Your task to perform on an android device: add a contact Image 0: 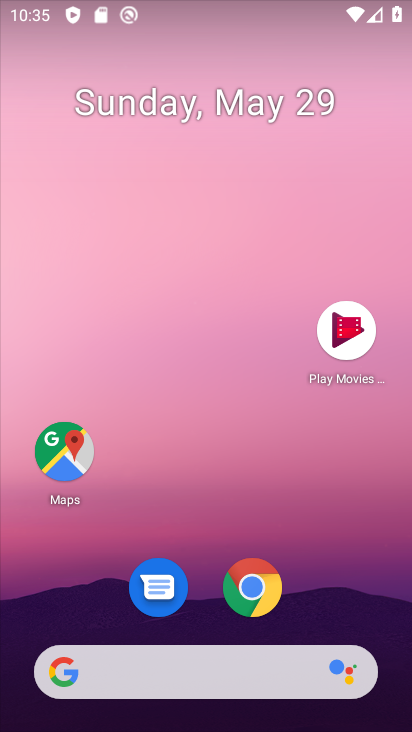
Step 0: drag from (367, 626) to (117, 72)
Your task to perform on an android device: add a contact Image 1: 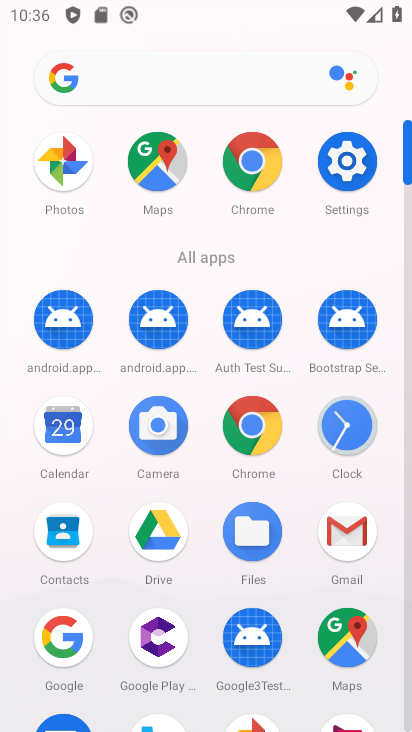
Step 1: click (74, 529)
Your task to perform on an android device: add a contact Image 2: 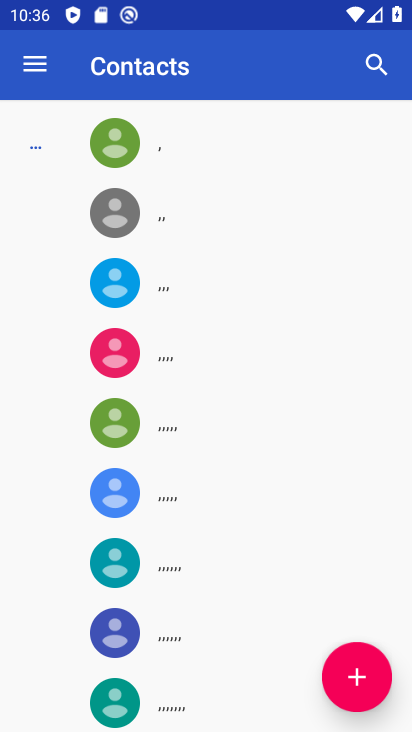
Step 2: click (373, 685)
Your task to perform on an android device: add a contact Image 3: 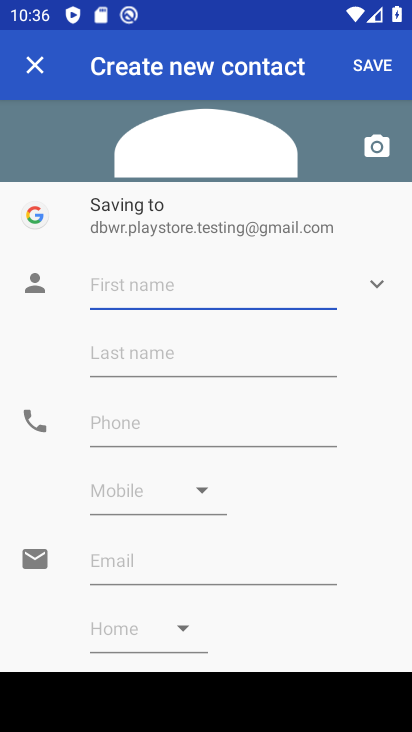
Step 3: type "jkjnjknkj"
Your task to perform on an android device: add a contact Image 4: 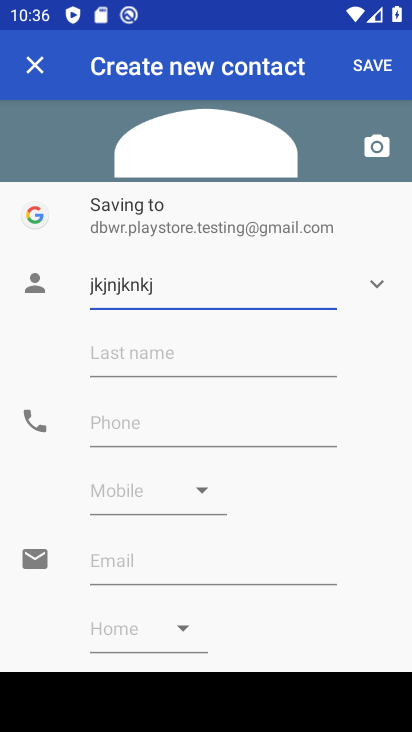
Step 4: click (272, 436)
Your task to perform on an android device: add a contact Image 5: 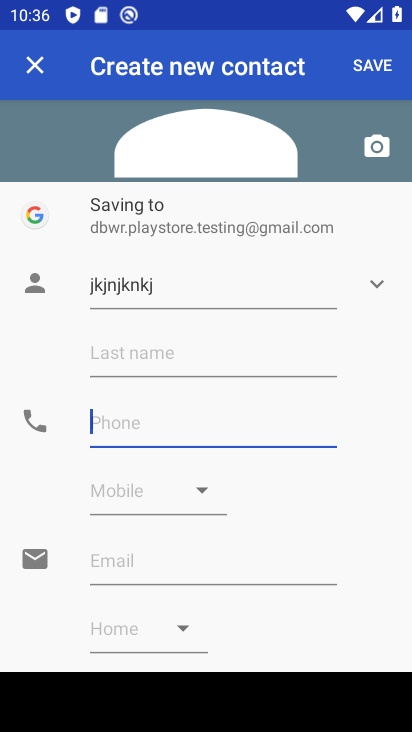
Step 5: type "67697979"
Your task to perform on an android device: add a contact Image 6: 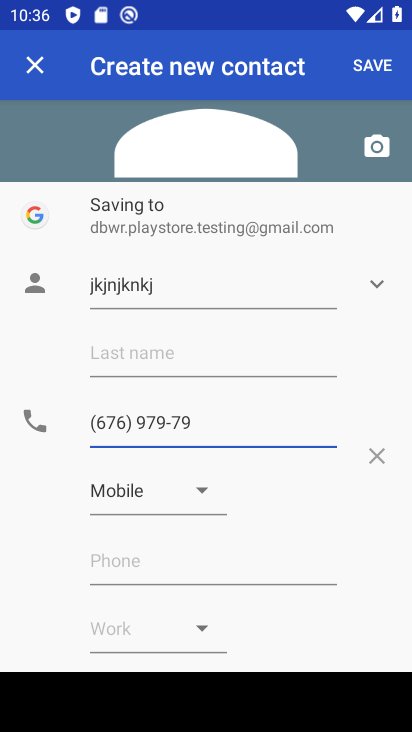
Step 6: click (382, 71)
Your task to perform on an android device: add a contact Image 7: 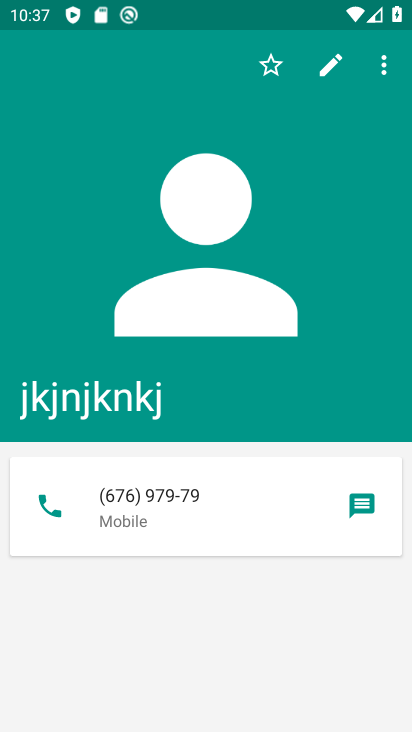
Step 7: task complete